Your task to perform on an android device: What's the weather? Image 0: 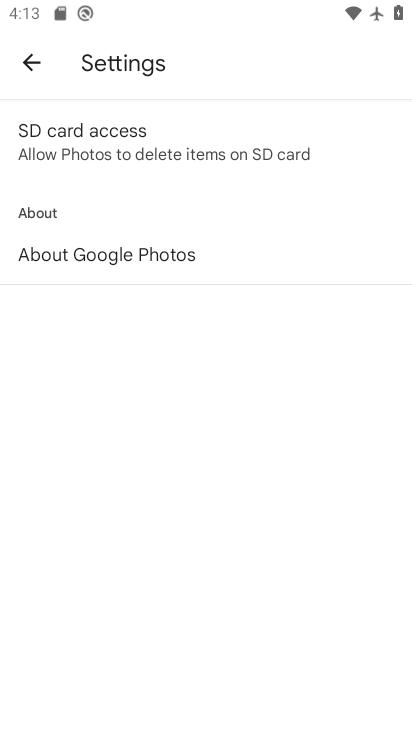
Step 0: press home button
Your task to perform on an android device: What's the weather? Image 1: 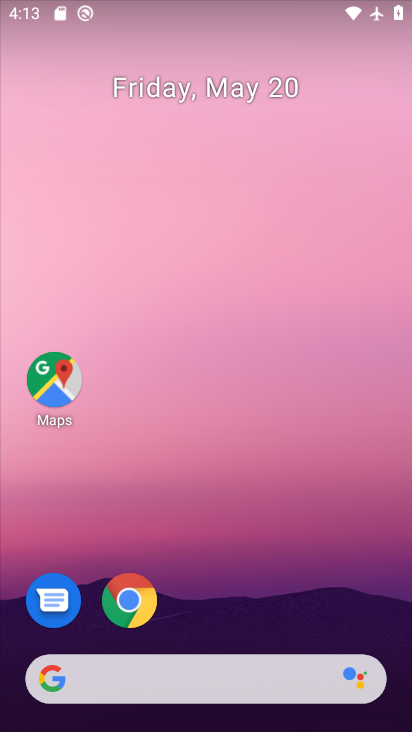
Step 1: drag from (264, 421) to (192, 51)
Your task to perform on an android device: What's the weather? Image 2: 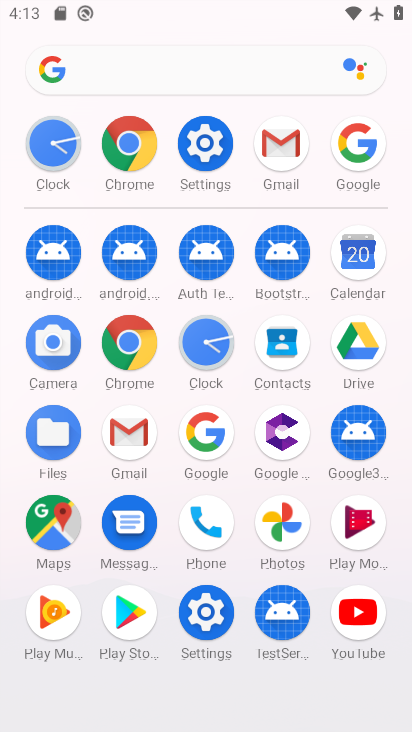
Step 2: click (210, 436)
Your task to perform on an android device: What's the weather? Image 3: 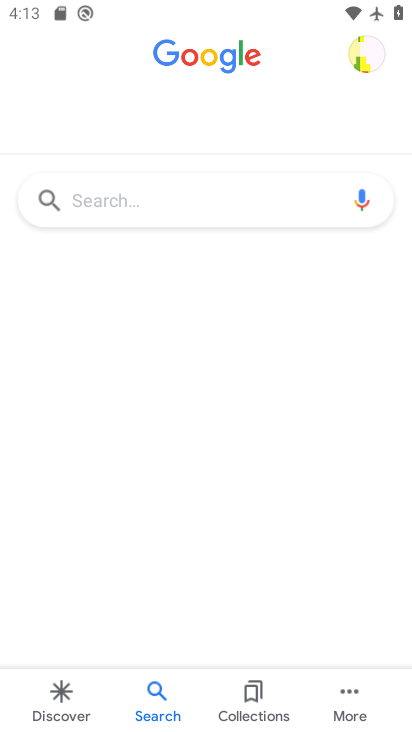
Step 3: click (152, 199)
Your task to perform on an android device: What's the weather? Image 4: 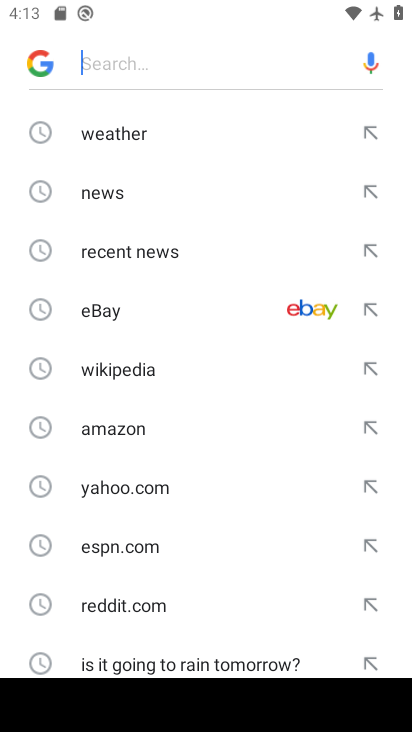
Step 4: click (198, 139)
Your task to perform on an android device: What's the weather? Image 5: 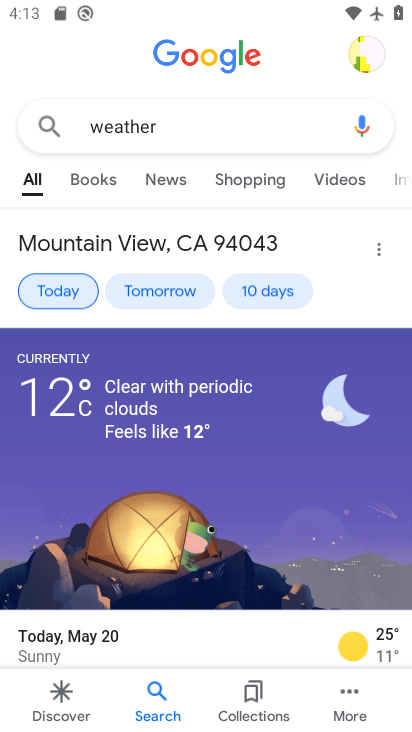
Step 5: task complete